Your task to perform on an android device: Open my contact list Image 0: 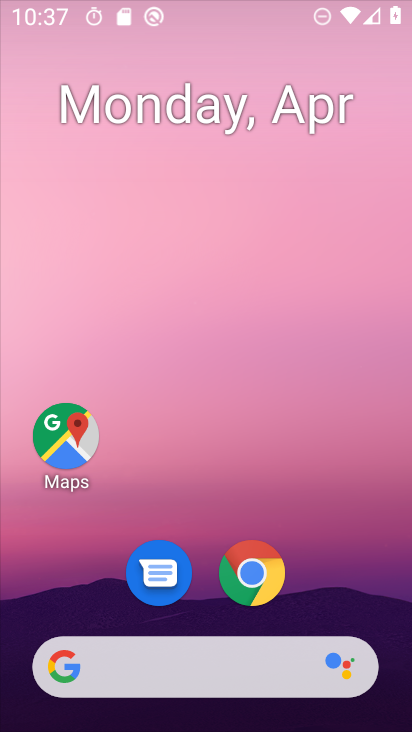
Step 0: drag from (324, 528) to (353, 2)
Your task to perform on an android device: Open my contact list Image 1: 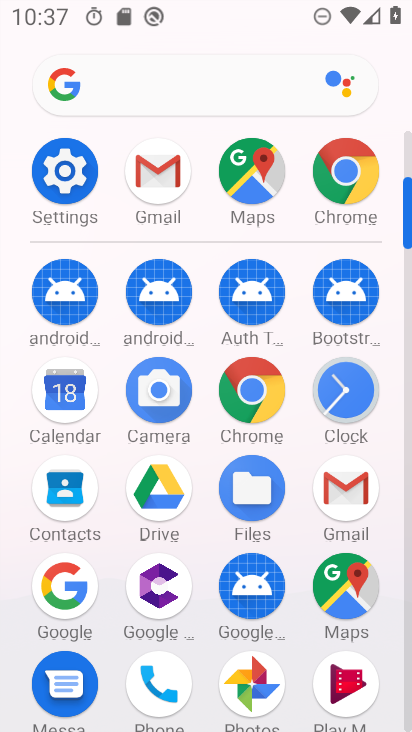
Step 1: click (56, 517)
Your task to perform on an android device: Open my contact list Image 2: 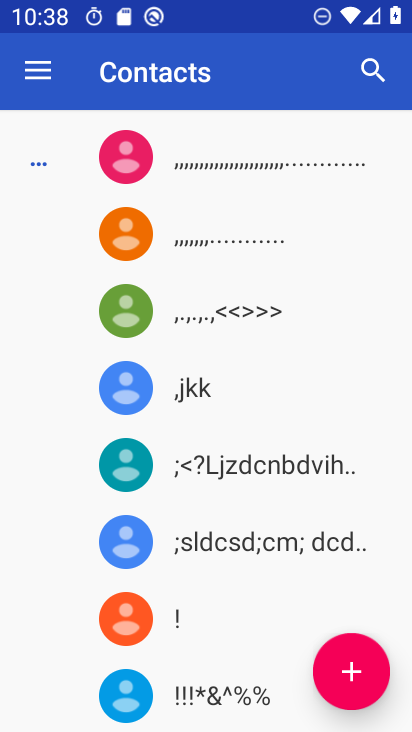
Step 2: drag from (380, 504) to (385, 142)
Your task to perform on an android device: Open my contact list Image 3: 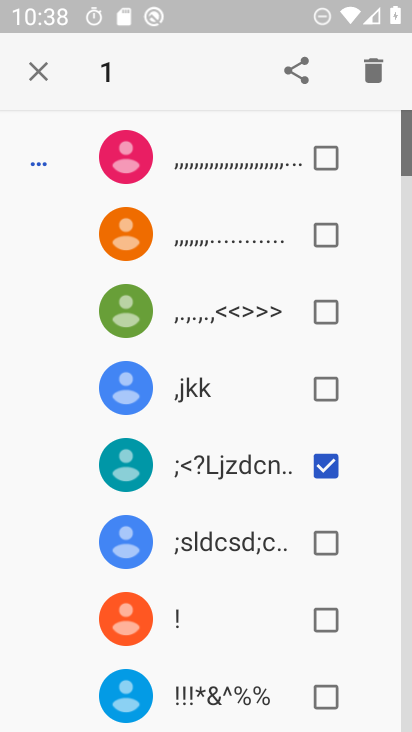
Step 3: click (316, 475)
Your task to perform on an android device: Open my contact list Image 4: 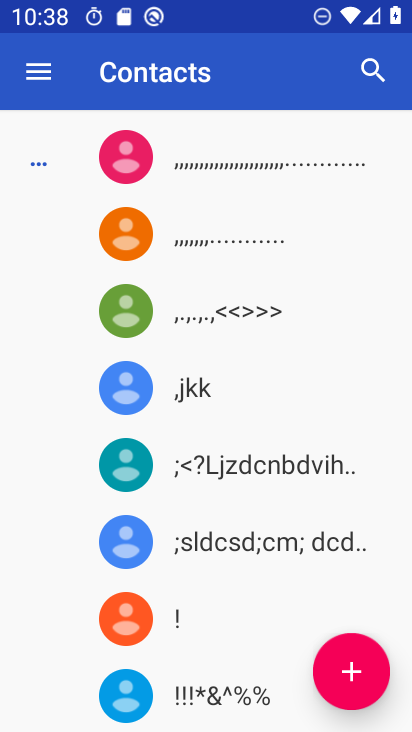
Step 4: drag from (44, 553) to (81, 108)
Your task to perform on an android device: Open my contact list Image 5: 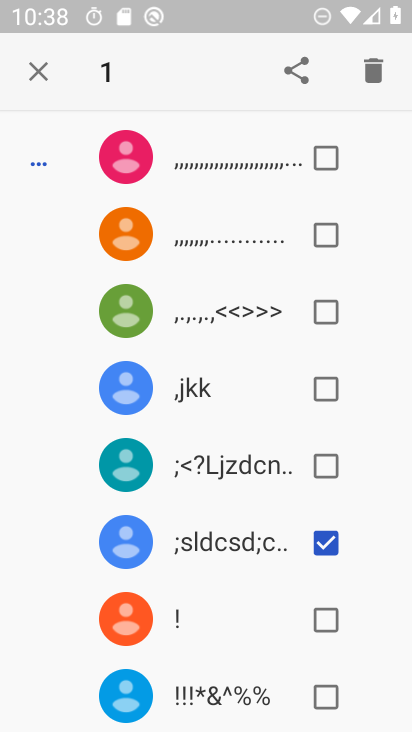
Step 5: click (324, 547)
Your task to perform on an android device: Open my contact list Image 6: 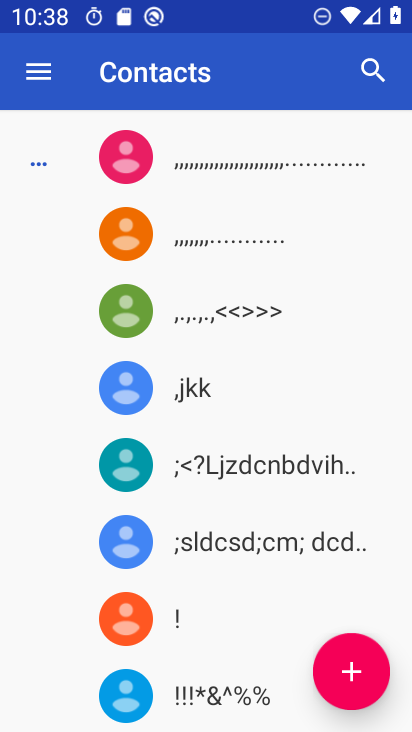
Step 6: task complete